Your task to perform on an android device: change alarm snooze length Image 0: 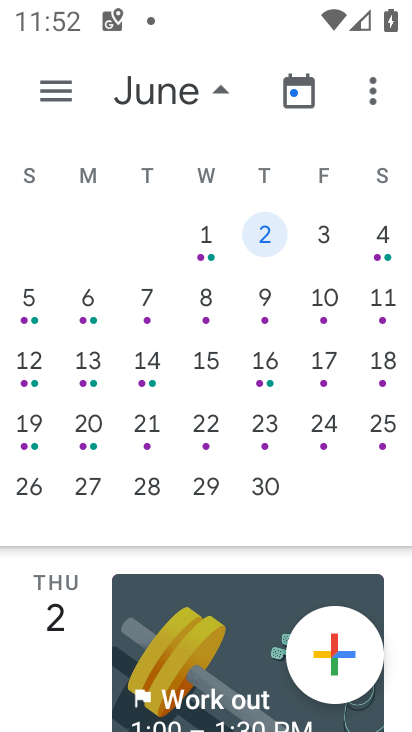
Step 0: press home button
Your task to perform on an android device: change alarm snooze length Image 1: 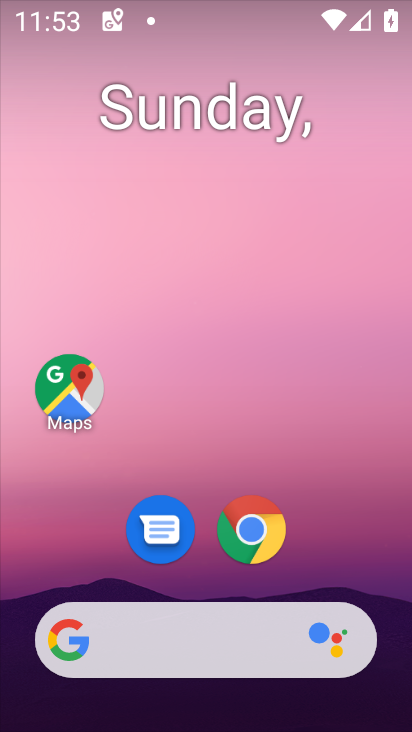
Step 1: drag from (382, 577) to (407, 87)
Your task to perform on an android device: change alarm snooze length Image 2: 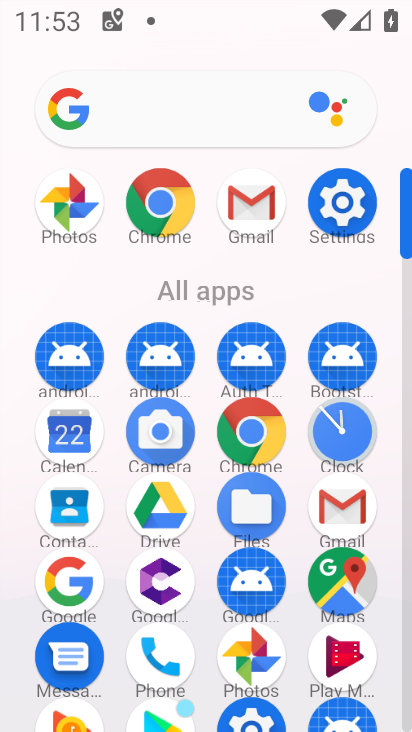
Step 2: click (350, 445)
Your task to perform on an android device: change alarm snooze length Image 3: 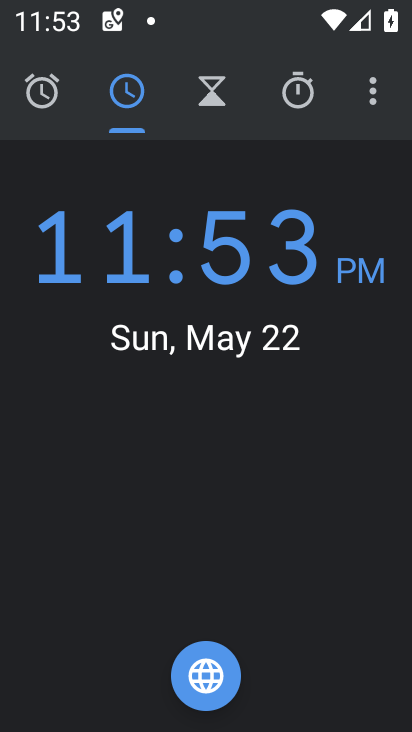
Step 3: click (372, 93)
Your task to perform on an android device: change alarm snooze length Image 4: 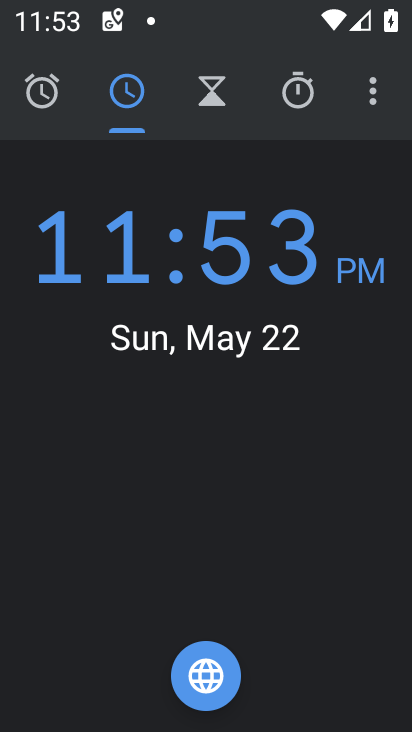
Step 4: click (378, 82)
Your task to perform on an android device: change alarm snooze length Image 5: 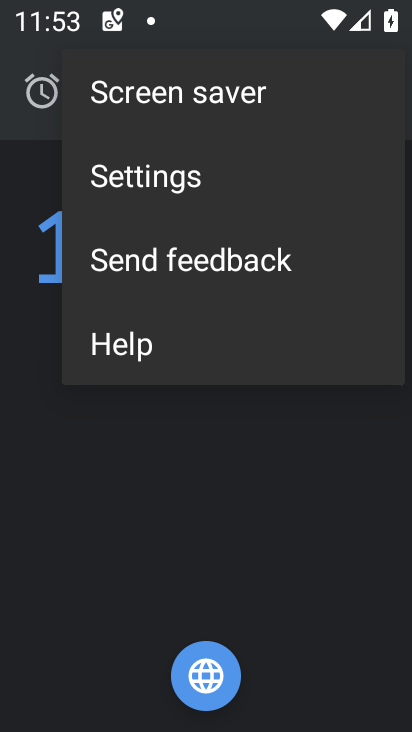
Step 5: click (197, 190)
Your task to perform on an android device: change alarm snooze length Image 6: 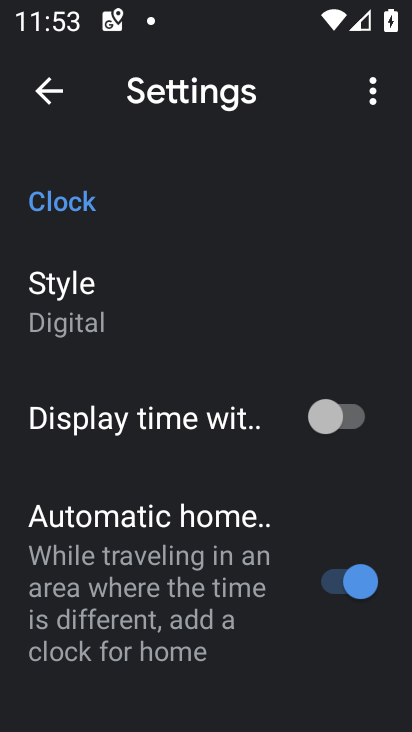
Step 6: drag from (245, 626) to (274, 474)
Your task to perform on an android device: change alarm snooze length Image 7: 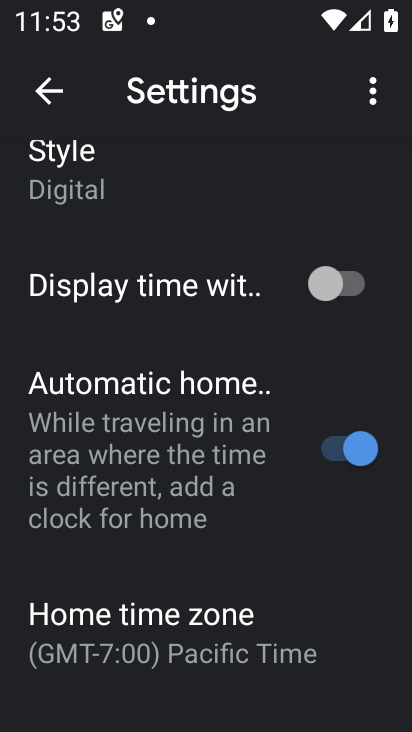
Step 7: drag from (362, 625) to (354, 468)
Your task to perform on an android device: change alarm snooze length Image 8: 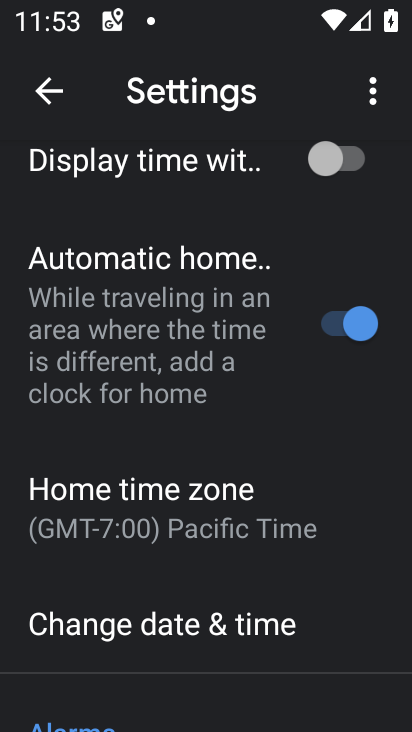
Step 8: drag from (351, 655) to (354, 522)
Your task to perform on an android device: change alarm snooze length Image 9: 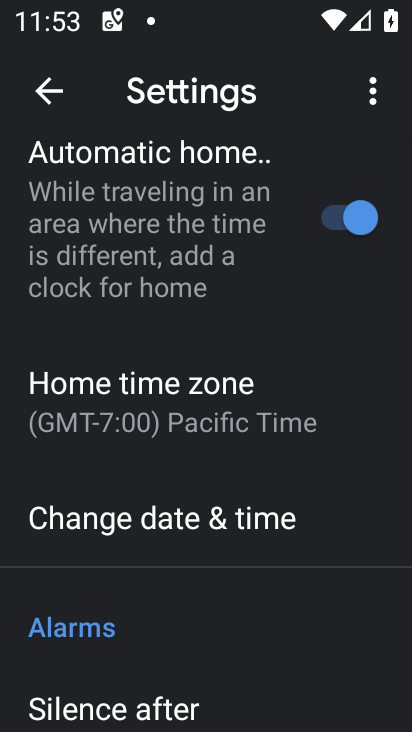
Step 9: drag from (344, 656) to (346, 532)
Your task to perform on an android device: change alarm snooze length Image 10: 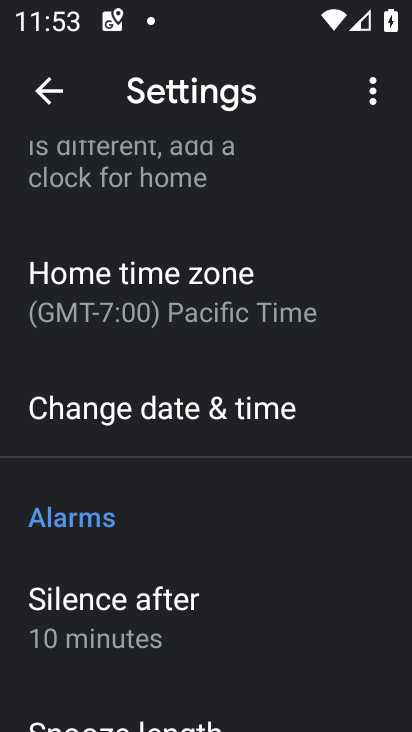
Step 10: drag from (360, 680) to (361, 538)
Your task to perform on an android device: change alarm snooze length Image 11: 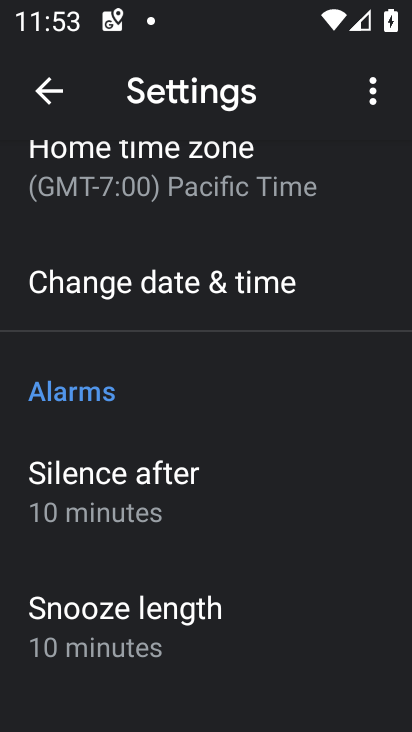
Step 11: click (173, 618)
Your task to perform on an android device: change alarm snooze length Image 12: 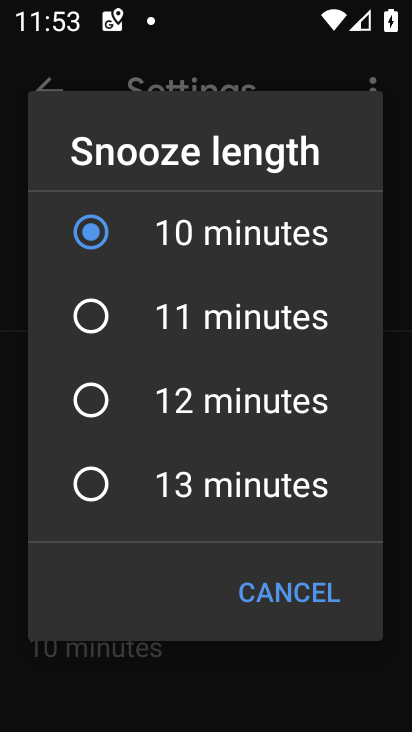
Step 12: click (266, 385)
Your task to perform on an android device: change alarm snooze length Image 13: 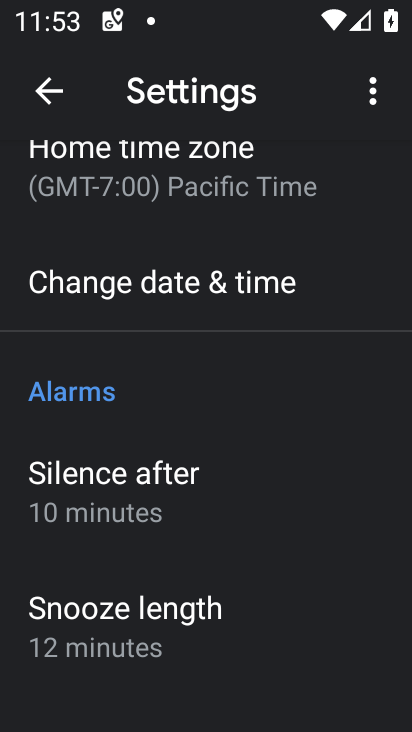
Step 13: task complete